Your task to perform on an android device: clear history in the chrome app Image 0: 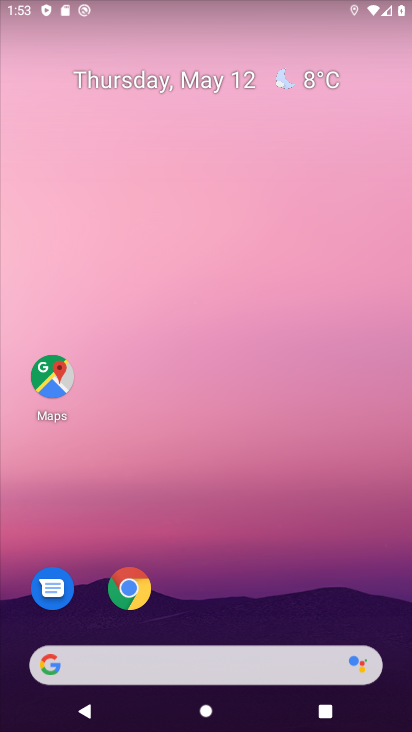
Step 0: drag from (214, 572) to (152, 21)
Your task to perform on an android device: clear history in the chrome app Image 1: 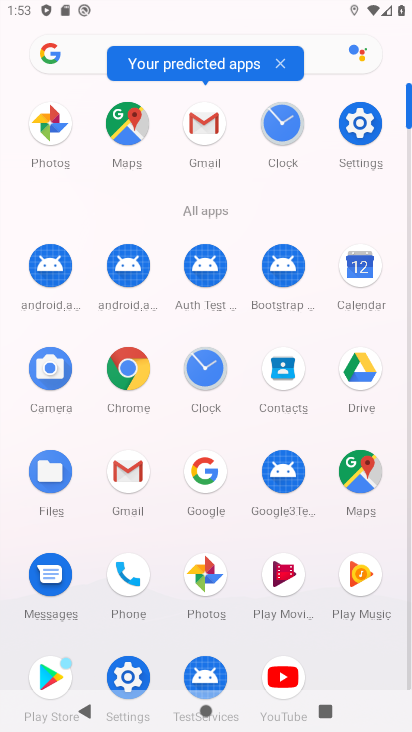
Step 1: click (127, 367)
Your task to perform on an android device: clear history in the chrome app Image 2: 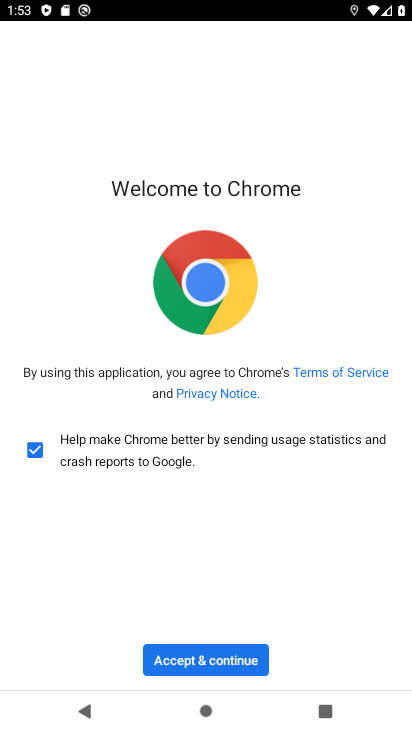
Step 2: click (207, 656)
Your task to perform on an android device: clear history in the chrome app Image 3: 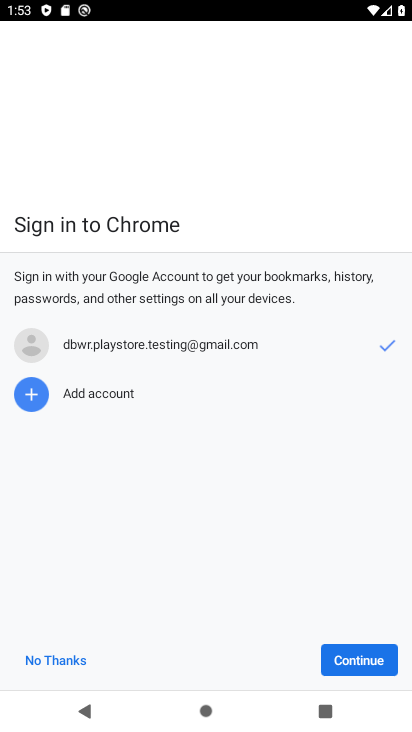
Step 3: click (334, 648)
Your task to perform on an android device: clear history in the chrome app Image 4: 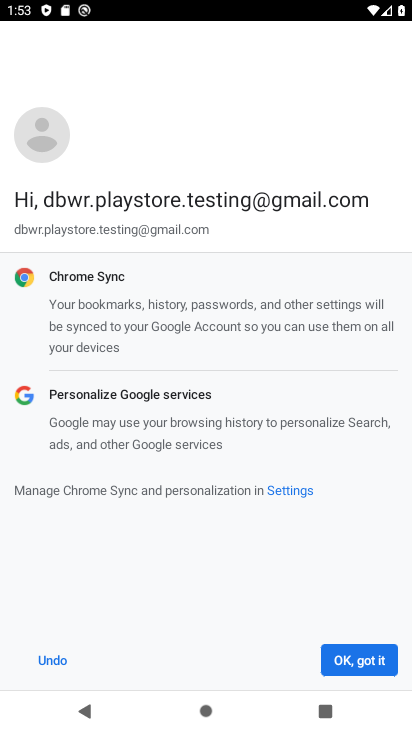
Step 4: click (366, 657)
Your task to perform on an android device: clear history in the chrome app Image 5: 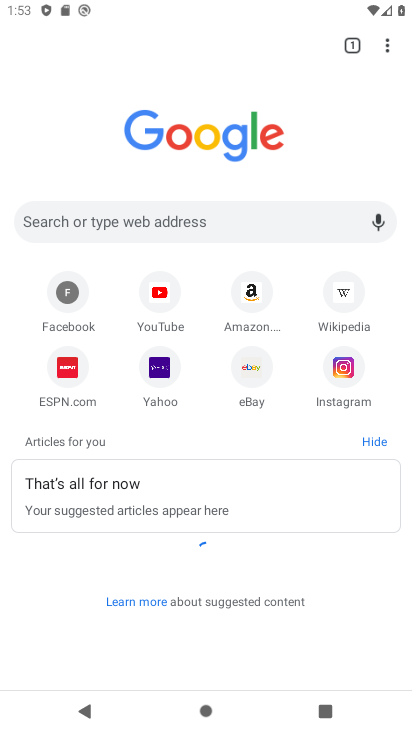
Step 5: drag from (387, 45) to (226, 370)
Your task to perform on an android device: clear history in the chrome app Image 6: 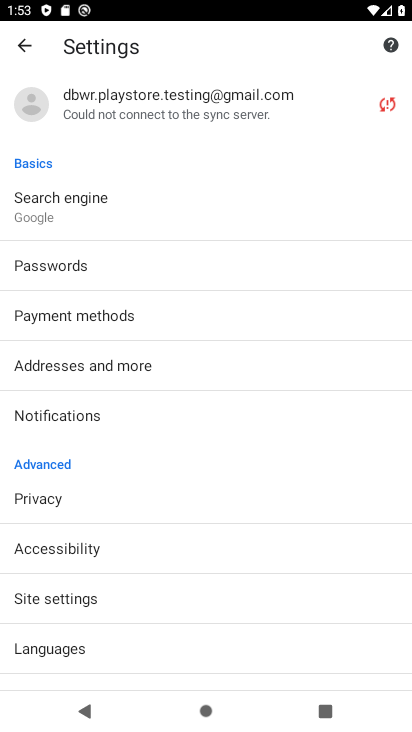
Step 6: drag from (182, 499) to (182, 184)
Your task to perform on an android device: clear history in the chrome app Image 7: 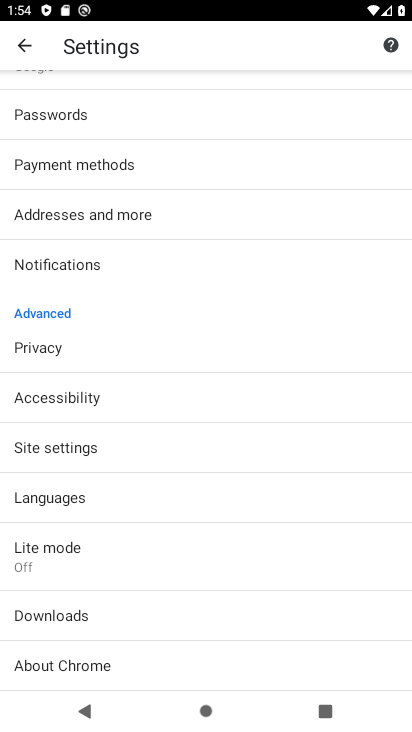
Step 7: drag from (161, 525) to (195, 223)
Your task to perform on an android device: clear history in the chrome app Image 8: 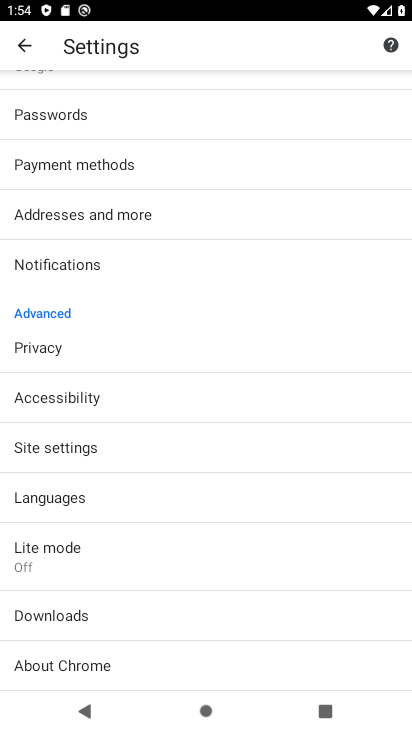
Step 8: click (81, 440)
Your task to perform on an android device: clear history in the chrome app Image 9: 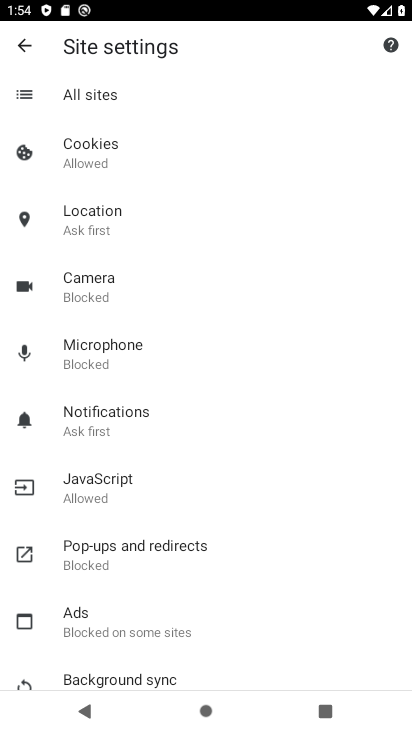
Step 9: drag from (202, 386) to (202, 83)
Your task to perform on an android device: clear history in the chrome app Image 10: 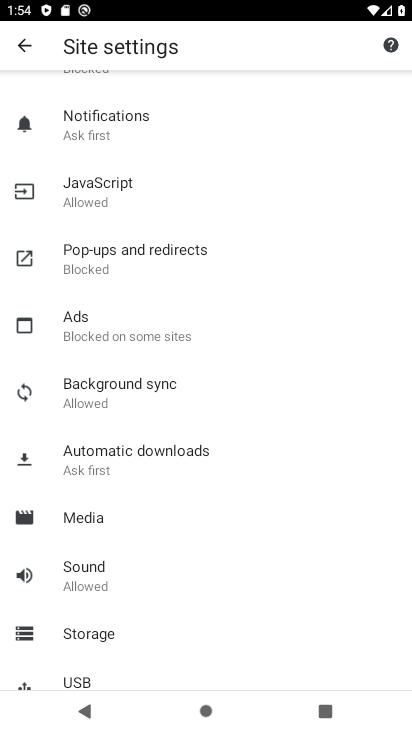
Step 10: drag from (187, 139) to (179, 483)
Your task to perform on an android device: clear history in the chrome app Image 11: 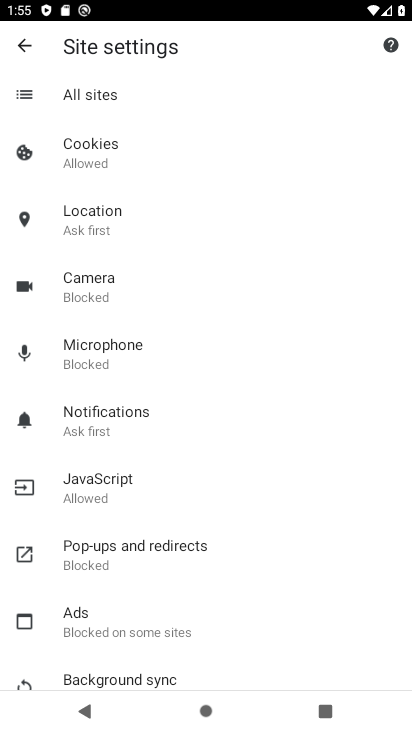
Step 11: drag from (168, 162) to (159, 508)
Your task to perform on an android device: clear history in the chrome app Image 12: 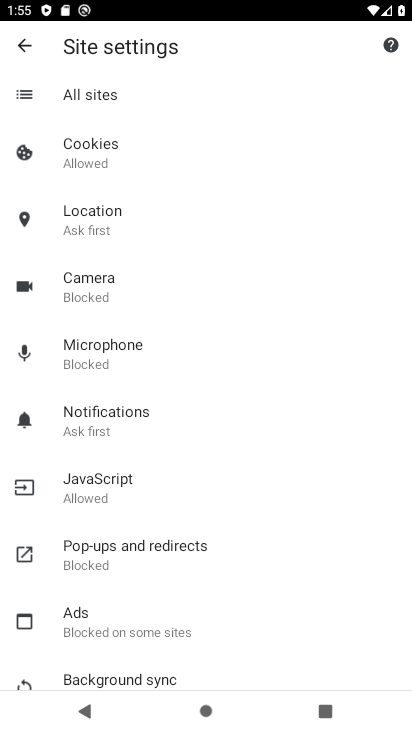
Step 12: click (28, 44)
Your task to perform on an android device: clear history in the chrome app Image 13: 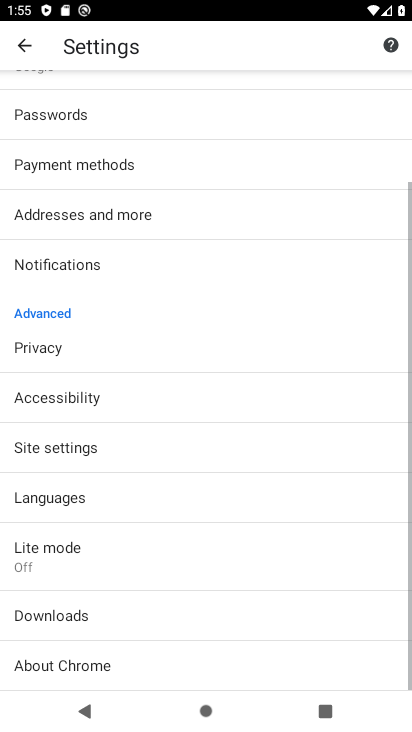
Step 13: click (67, 354)
Your task to perform on an android device: clear history in the chrome app Image 14: 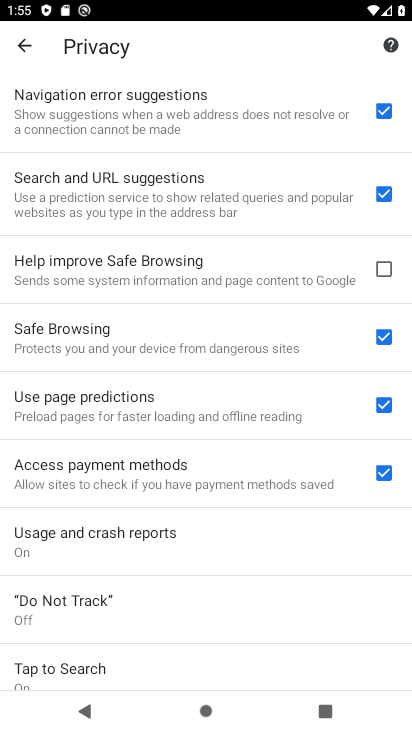
Step 14: drag from (118, 582) to (150, 55)
Your task to perform on an android device: clear history in the chrome app Image 15: 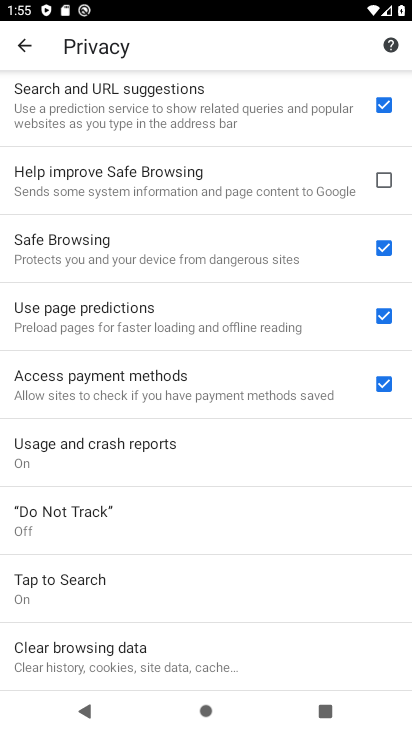
Step 15: click (86, 660)
Your task to perform on an android device: clear history in the chrome app Image 16: 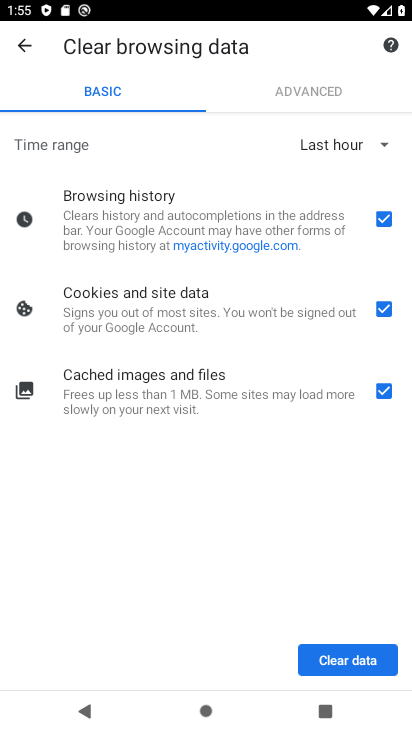
Step 16: click (338, 666)
Your task to perform on an android device: clear history in the chrome app Image 17: 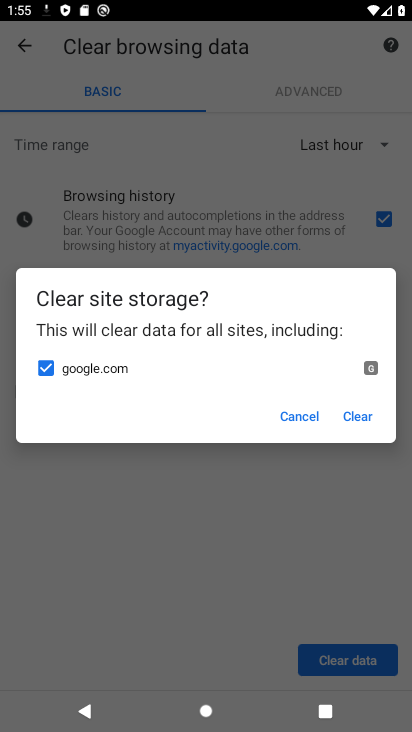
Step 17: click (363, 421)
Your task to perform on an android device: clear history in the chrome app Image 18: 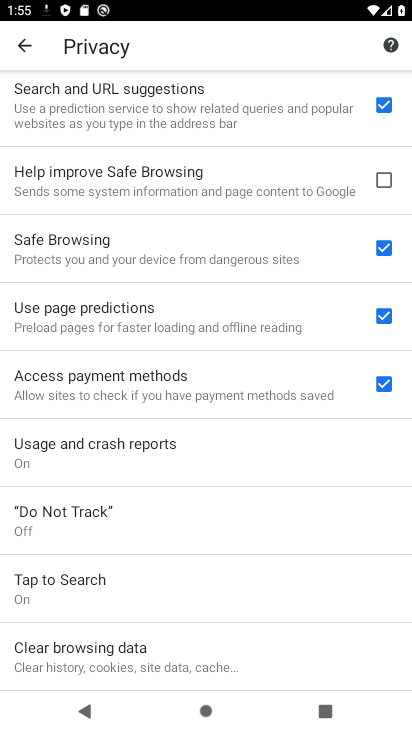
Step 18: task complete